Your task to perform on an android device: What's on my calendar tomorrow? Image 0: 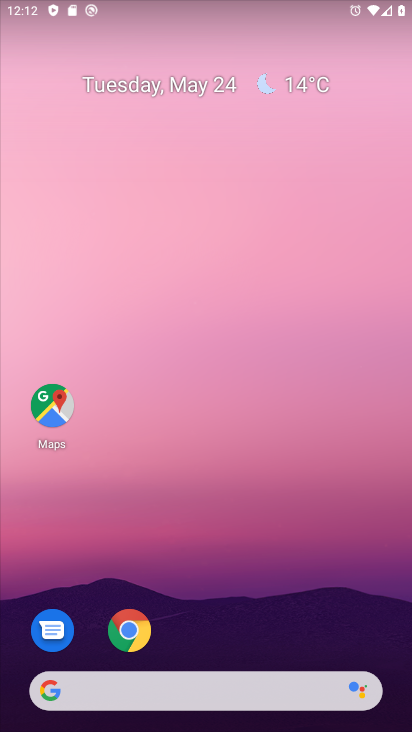
Step 0: drag from (328, 609) to (288, 125)
Your task to perform on an android device: What's on my calendar tomorrow? Image 1: 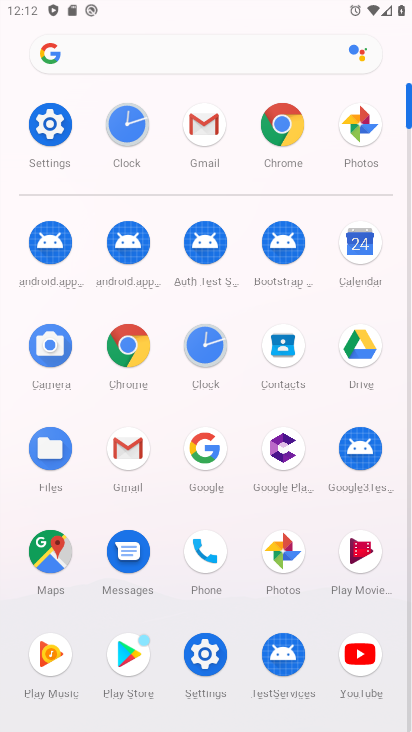
Step 1: click (360, 232)
Your task to perform on an android device: What's on my calendar tomorrow? Image 2: 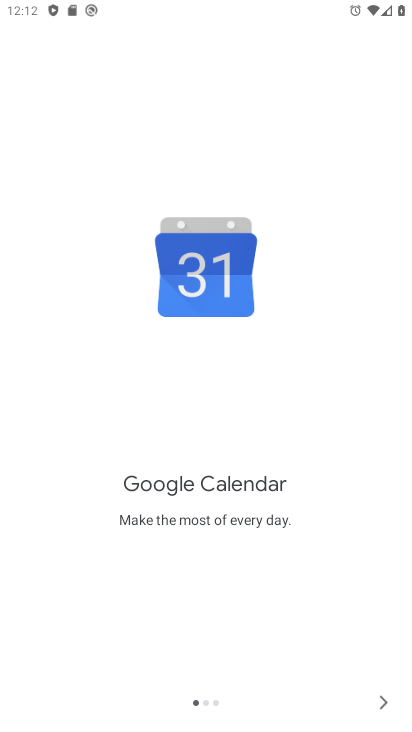
Step 2: click (373, 704)
Your task to perform on an android device: What's on my calendar tomorrow? Image 3: 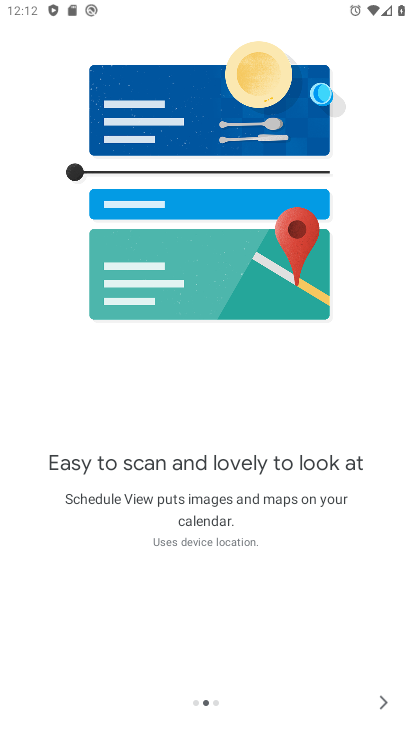
Step 3: click (374, 704)
Your task to perform on an android device: What's on my calendar tomorrow? Image 4: 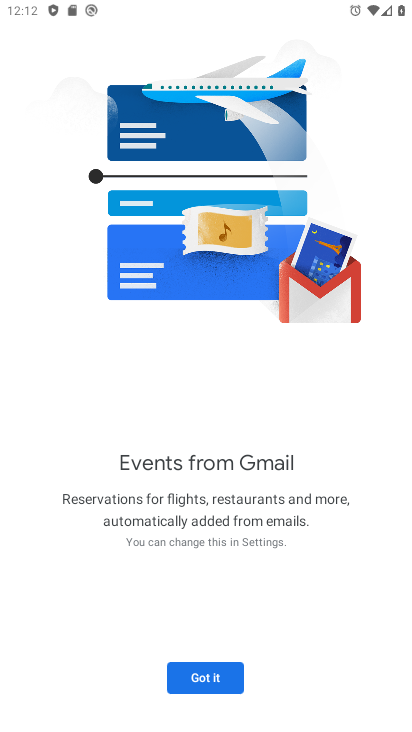
Step 4: click (205, 679)
Your task to perform on an android device: What's on my calendar tomorrow? Image 5: 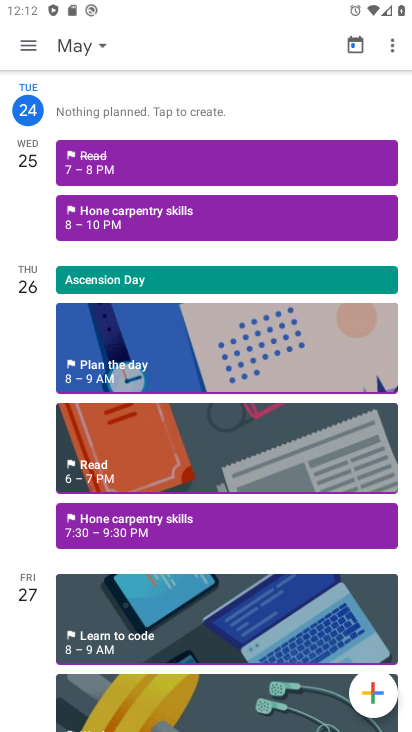
Step 5: click (79, 52)
Your task to perform on an android device: What's on my calendar tomorrow? Image 6: 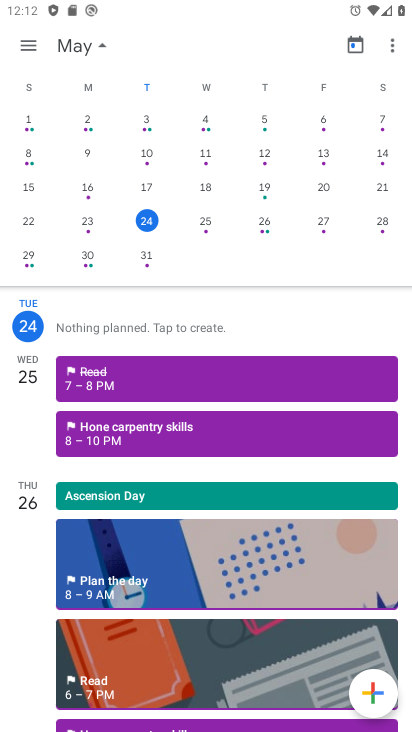
Step 6: drag from (325, 179) to (235, 195)
Your task to perform on an android device: What's on my calendar tomorrow? Image 7: 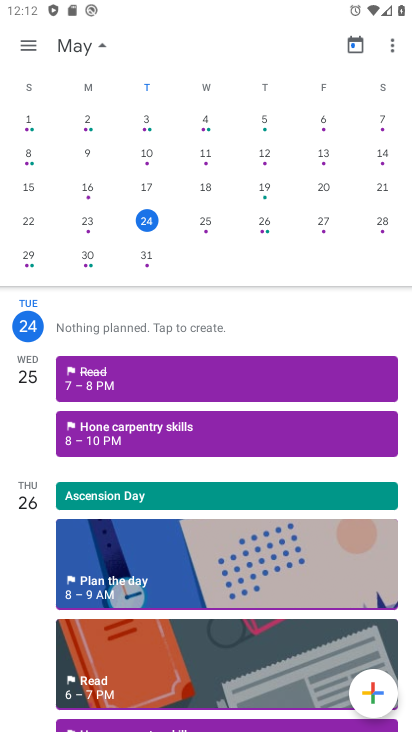
Step 7: click (205, 220)
Your task to perform on an android device: What's on my calendar tomorrow? Image 8: 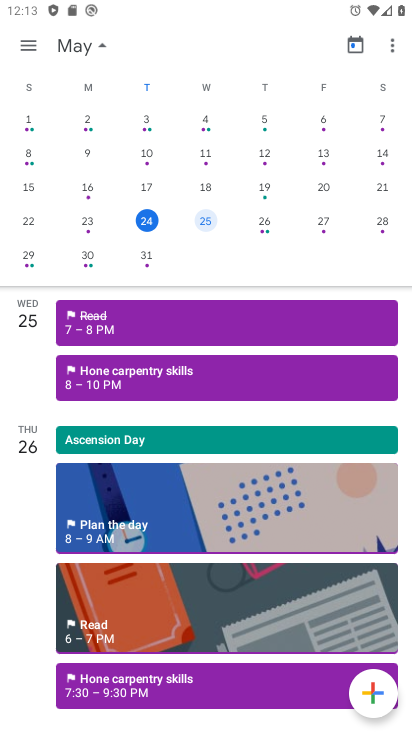
Step 8: task complete